Your task to perform on an android device: delete a single message in the gmail app Image 0: 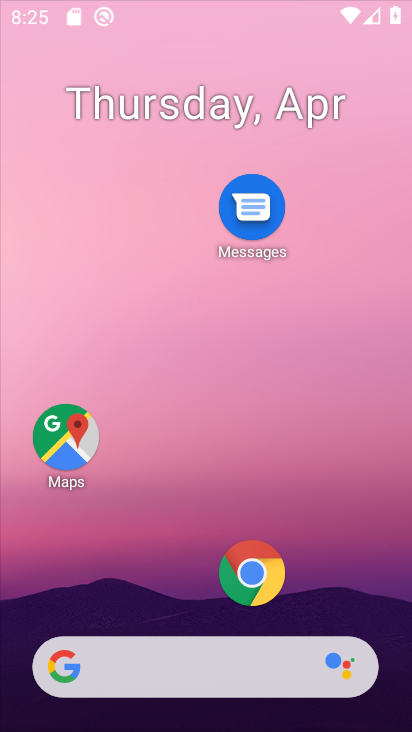
Step 0: press home button
Your task to perform on an android device: delete a single message in the gmail app Image 1: 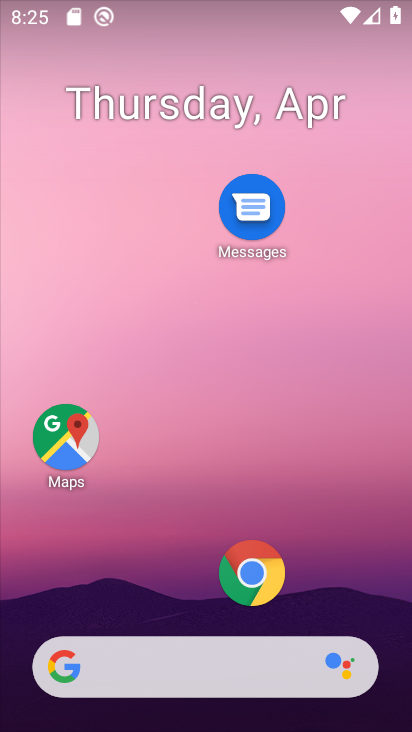
Step 1: drag from (213, 607) to (185, 95)
Your task to perform on an android device: delete a single message in the gmail app Image 2: 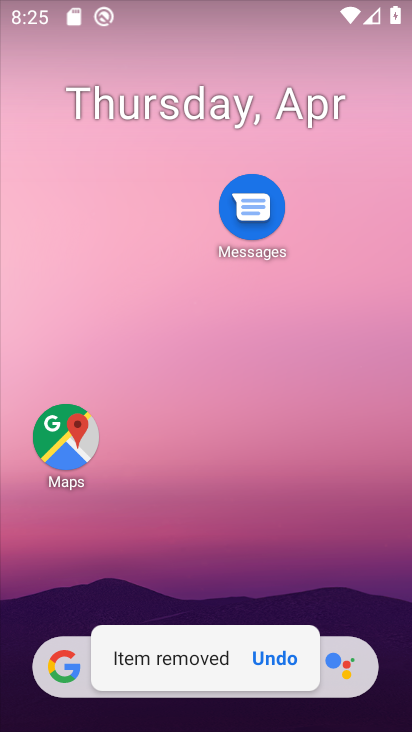
Step 2: click (275, 642)
Your task to perform on an android device: delete a single message in the gmail app Image 3: 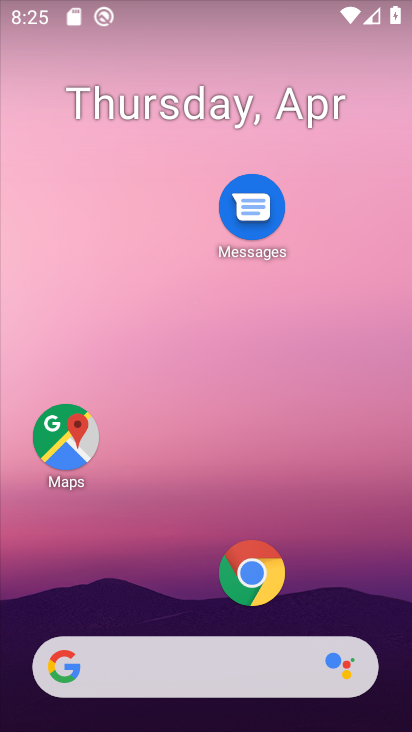
Step 3: drag from (323, 602) to (345, 63)
Your task to perform on an android device: delete a single message in the gmail app Image 4: 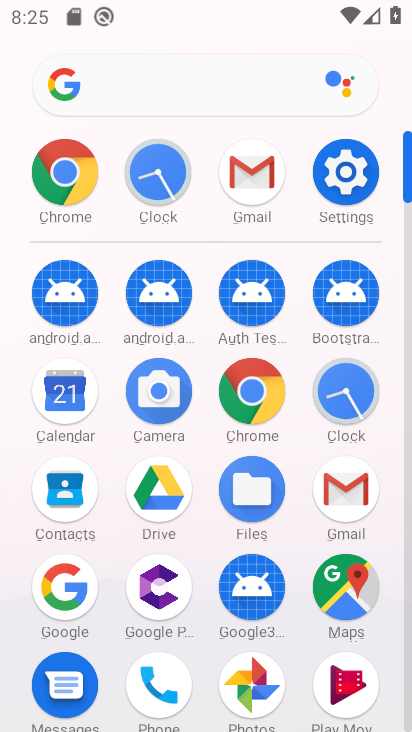
Step 4: click (346, 481)
Your task to perform on an android device: delete a single message in the gmail app Image 5: 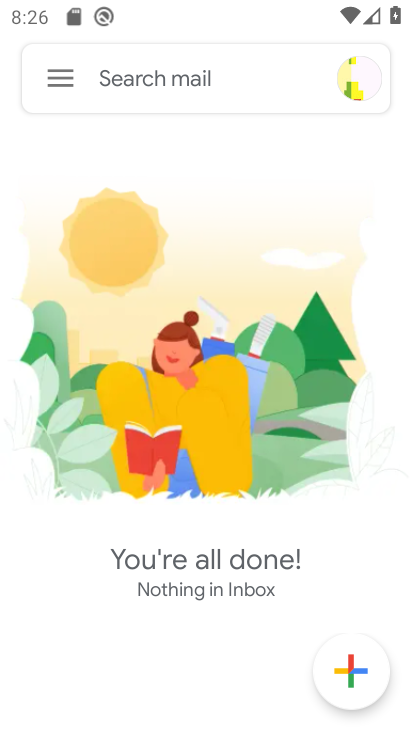
Step 5: click (59, 71)
Your task to perform on an android device: delete a single message in the gmail app Image 6: 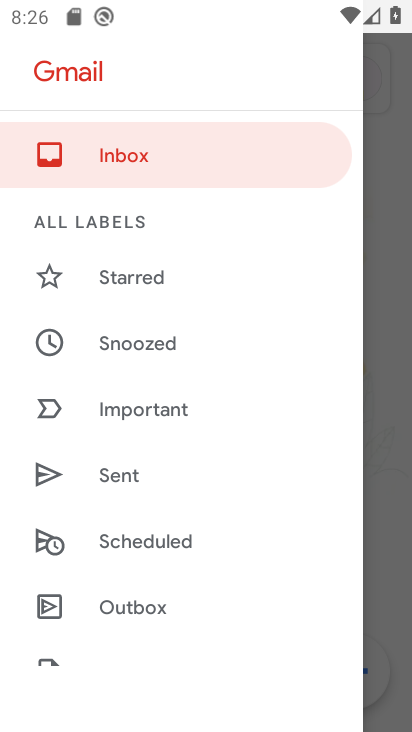
Step 6: drag from (176, 645) to (205, 151)
Your task to perform on an android device: delete a single message in the gmail app Image 7: 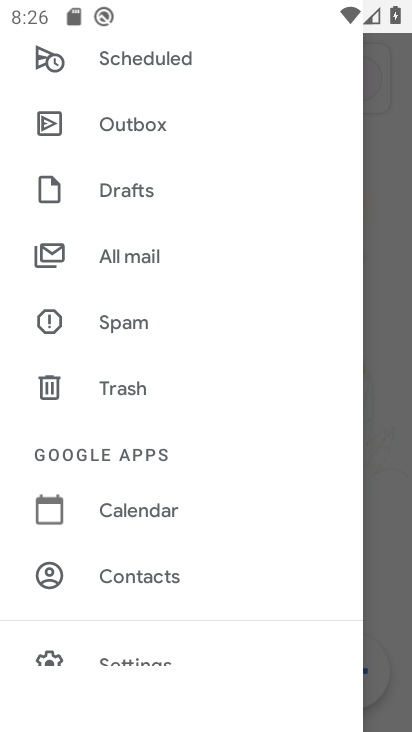
Step 7: drag from (206, 614) to (218, 77)
Your task to perform on an android device: delete a single message in the gmail app Image 8: 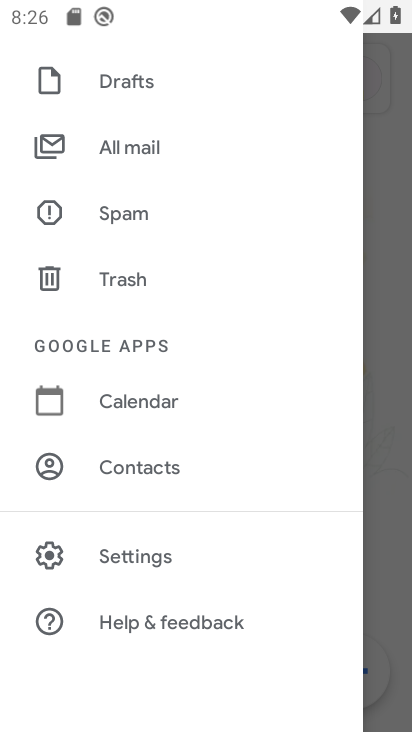
Step 8: click (87, 142)
Your task to perform on an android device: delete a single message in the gmail app Image 9: 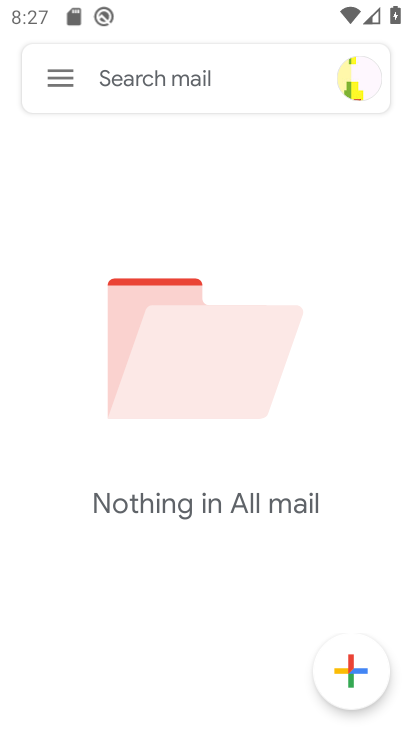
Step 9: task complete